Your task to perform on an android device: Open Amazon Image 0: 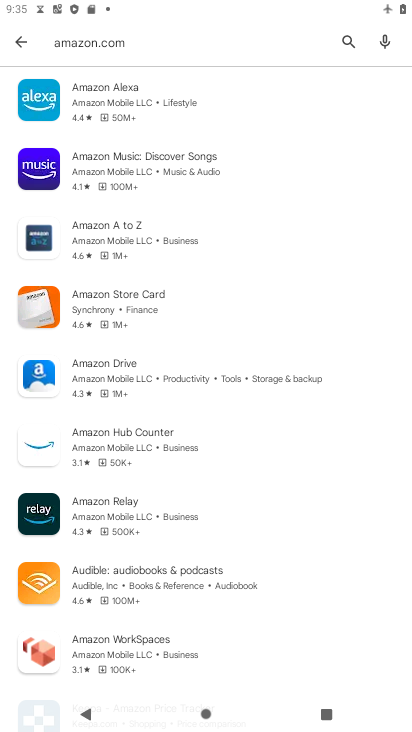
Step 0: press home button
Your task to perform on an android device: Open Amazon Image 1: 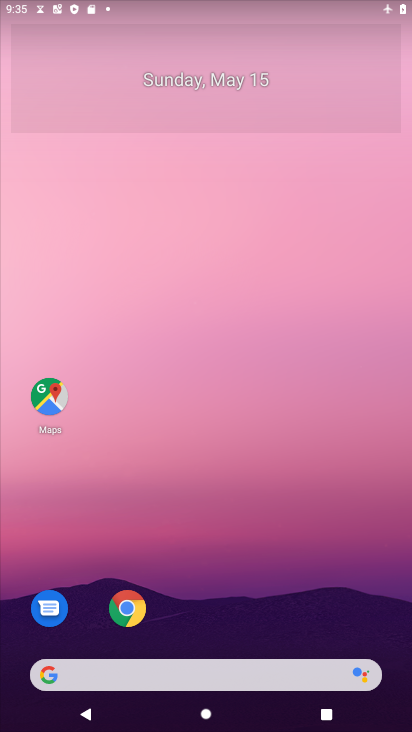
Step 1: drag from (239, 521) to (217, 18)
Your task to perform on an android device: Open Amazon Image 2: 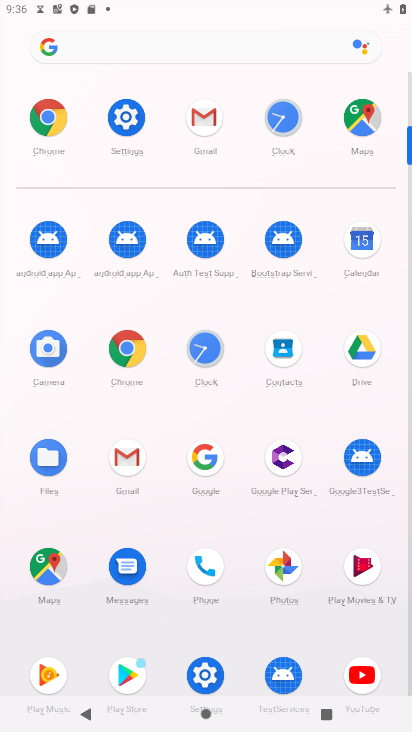
Step 2: click (52, 137)
Your task to perform on an android device: Open Amazon Image 3: 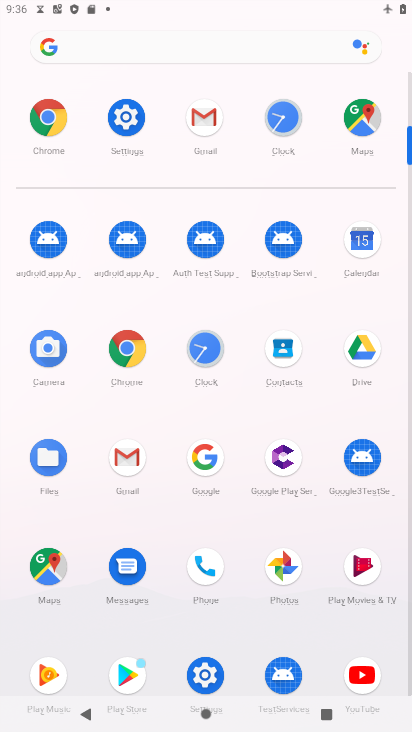
Step 3: click (56, 129)
Your task to perform on an android device: Open Amazon Image 4: 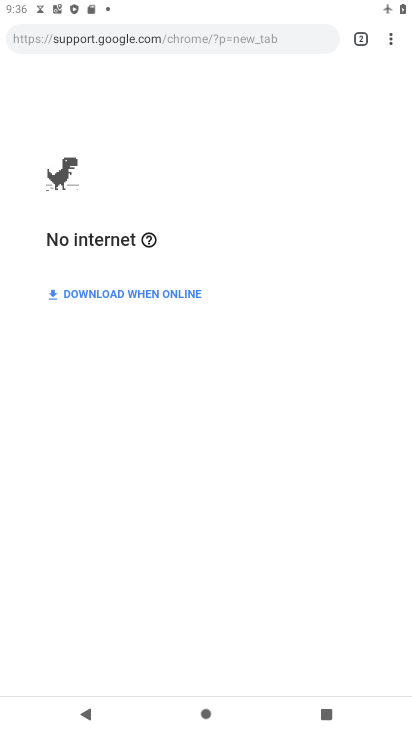
Step 4: task complete